Your task to perform on an android device: When is my next appointment? Image 0: 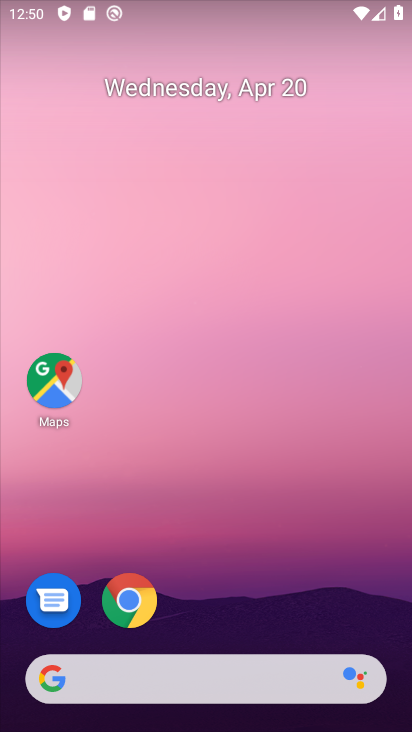
Step 0: drag from (261, 425) to (276, 229)
Your task to perform on an android device: When is my next appointment? Image 1: 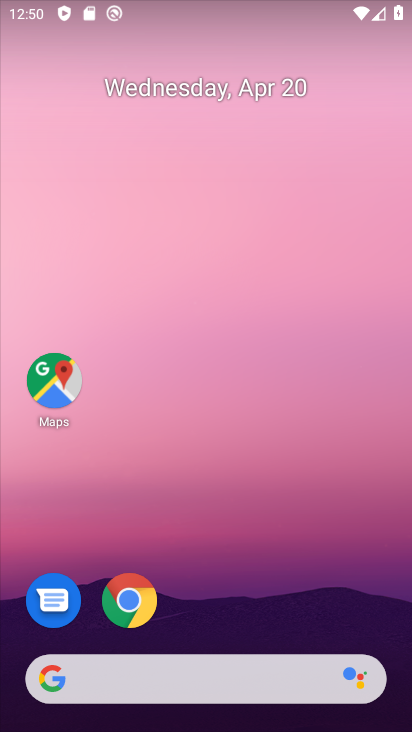
Step 1: drag from (297, 501) to (293, 207)
Your task to perform on an android device: When is my next appointment? Image 2: 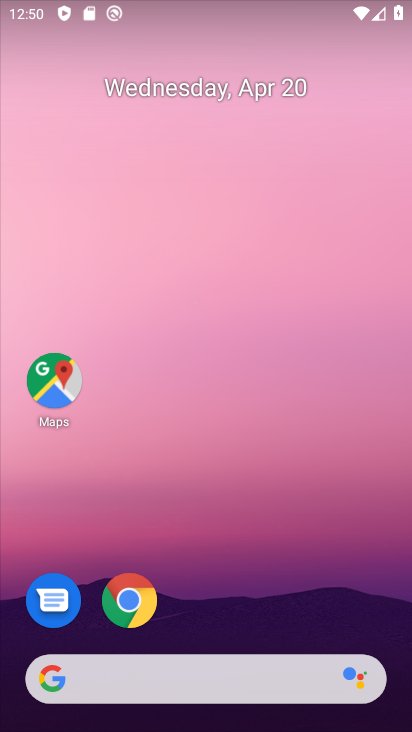
Step 2: drag from (235, 568) to (280, 159)
Your task to perform on an android device: When is my next appointment? Image 3: 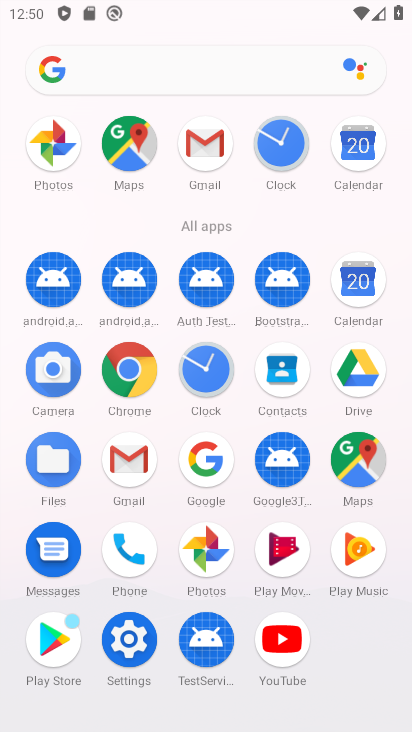
Step 3: click (349, 280)
Your task to perform on an android device: When is my next appointment? Image 4: 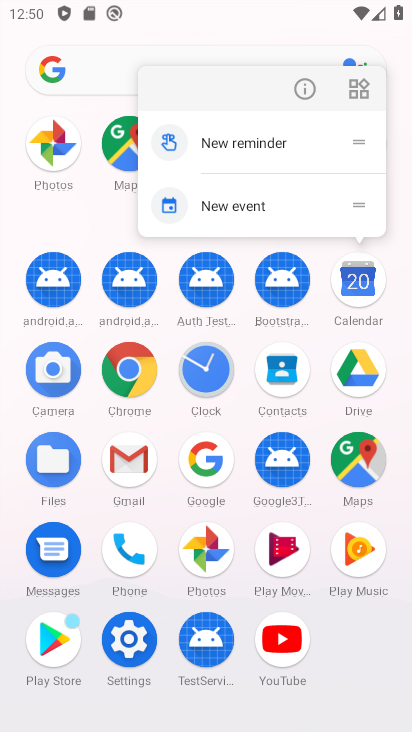
Step 4: click (350, 279)
Your task to perform on an android device: When is my next appointment? Image 5: 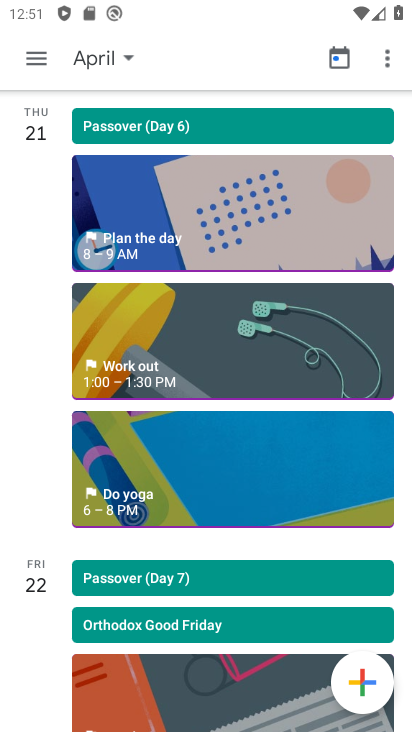
Step 5: click (33, 57)
Your task to perform on an android device: When is my next appointment? Image 6: 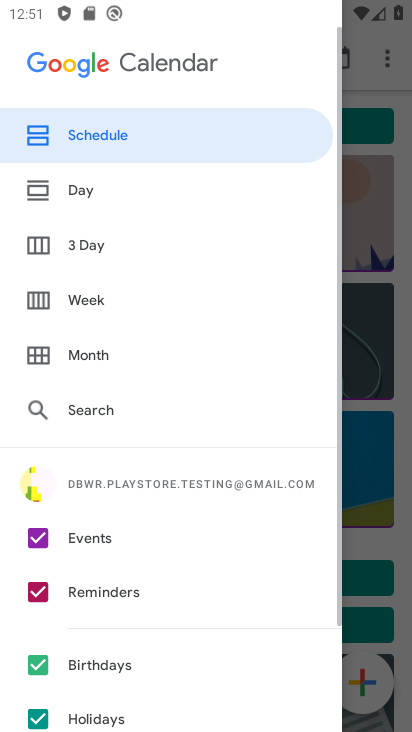
Step 6: click (138, 343)
Your task to perform on an android device: When is my next appointment? Image 7: 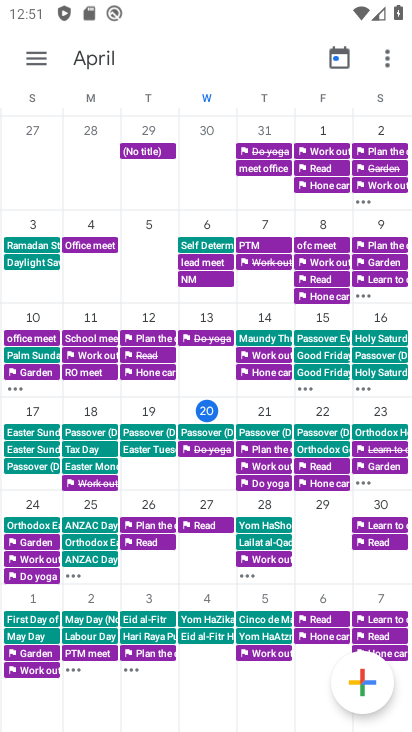
Step 7: click (270, 405)
Your task to perform on an android device: When is my next appointment? Image 8: 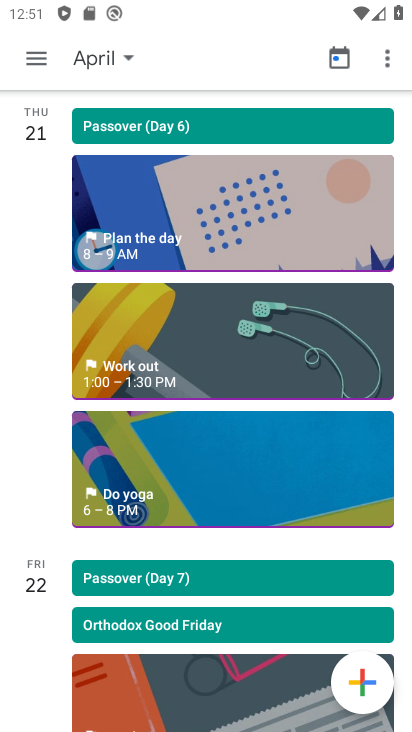
Step 8: task complete